Your task to perform on an android device: Open settings on Google Maps Image 0: 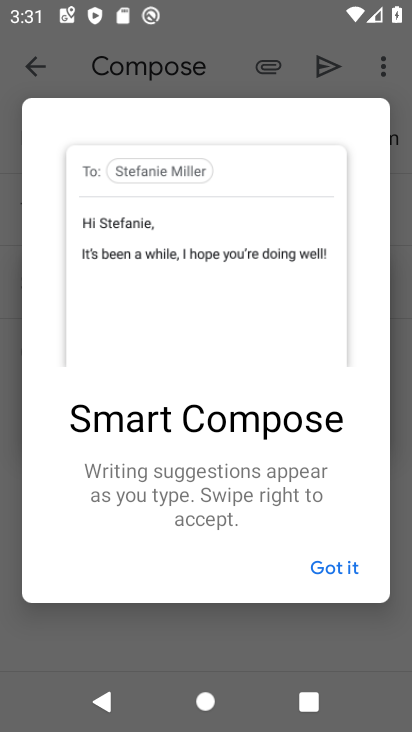
Step 0: press home button
Your task to perform on an android device: Open settings on Google Maps Image 1: 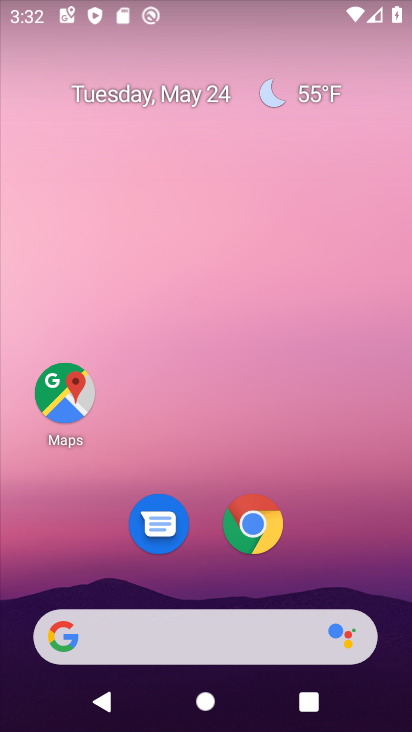
Step 1: click (66, 407)
Your task to perform on an android device: Open settings on Google Maps Image 2: 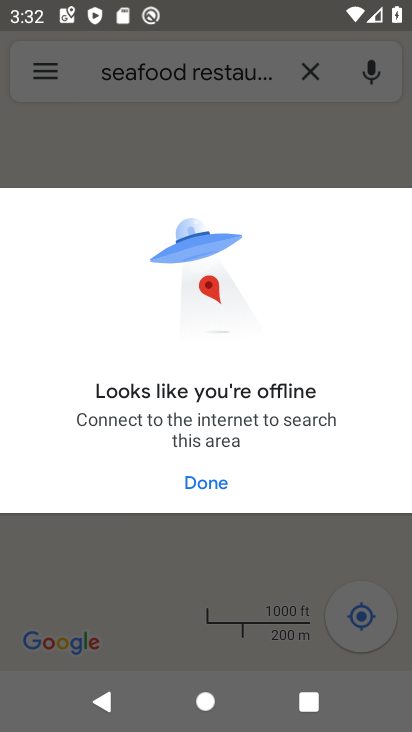
Step 2: click (205, 477)
Your task to perform on an android device: Open settings on Google Maps Image 3: 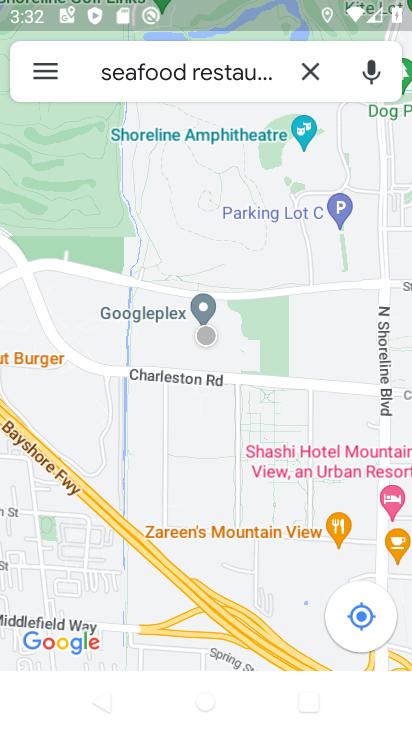
Step 3: click (47, 71)
Your task to perform on an android device: Open settings on Google Maps Image 4: 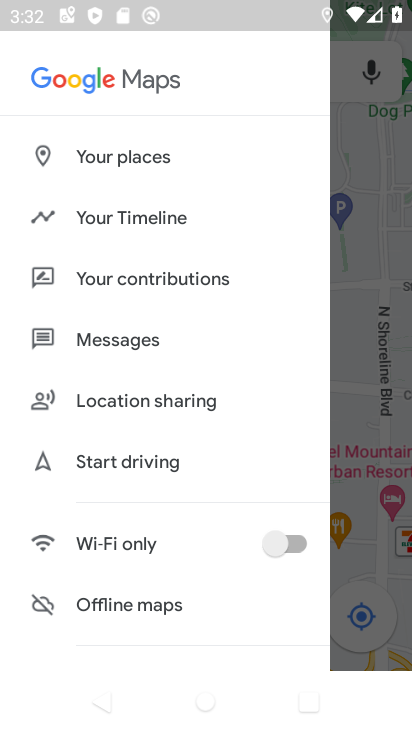
Step 4: drag from (165, 540) to (224, 71)
Your task to perform on an android device: Open settings on Google Maps Image 5: 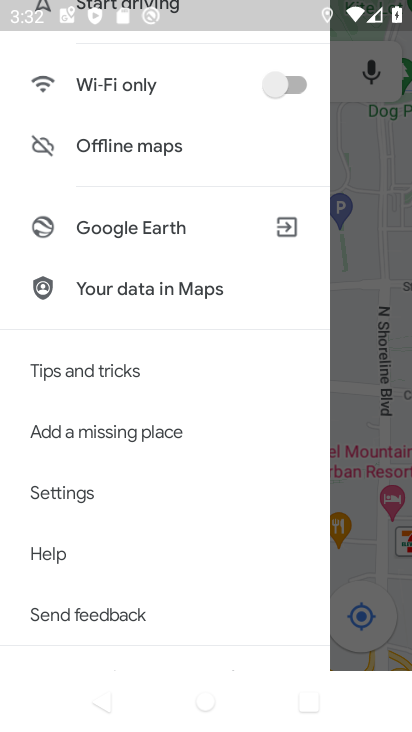
Step 5: click (145, 498)
Your task to perform on an android device: Open settings on Google Maps Image 6: 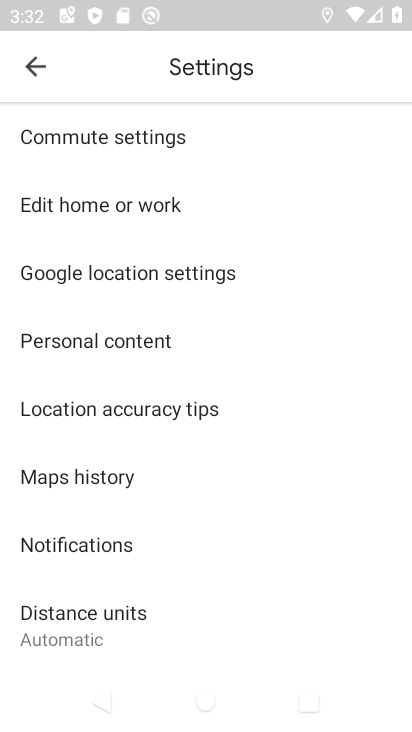
Step 6: task complete